Your task to perform on an android device: Go to Android settings Image 0: 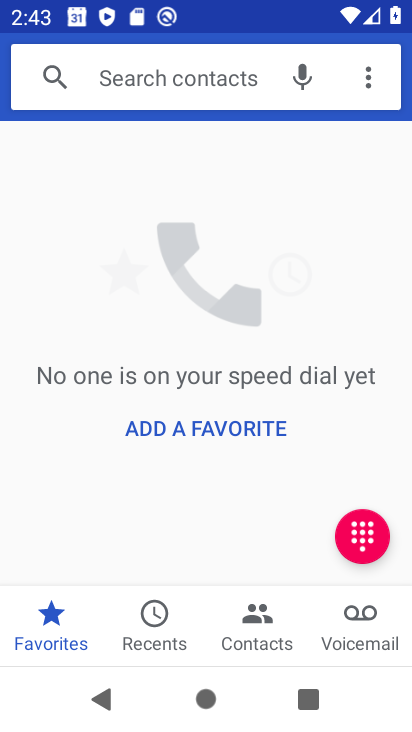
Step 0: press home button
Your task to perform on an android device: Go to Android settings Image 1: 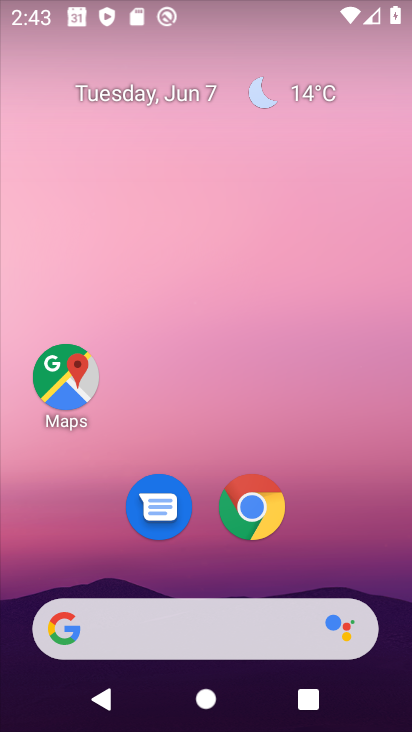
Step 1: drag from (333, 500) to (311, 113)
Your task to perform on an android device: Go to Android settings Image 2: 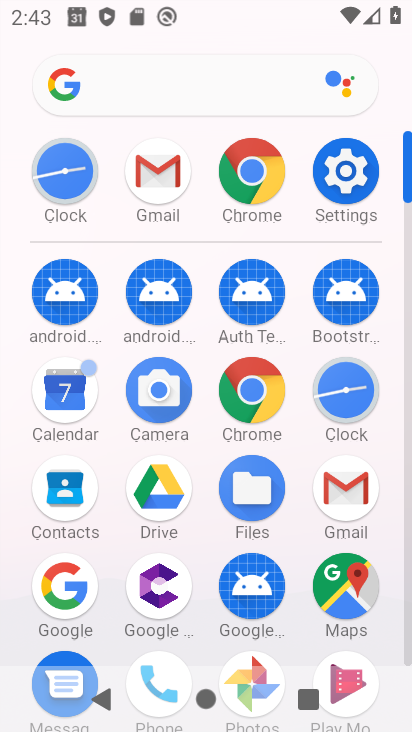
Step 2: click (339, 171)
Your task to perform on an android device: Go to Android settings Image 3: 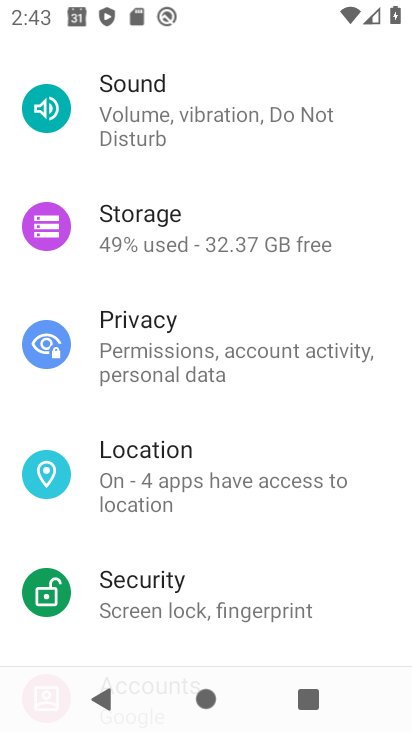
Step 3: task complete